Your task to perform on an android device: Open the map Image 0: 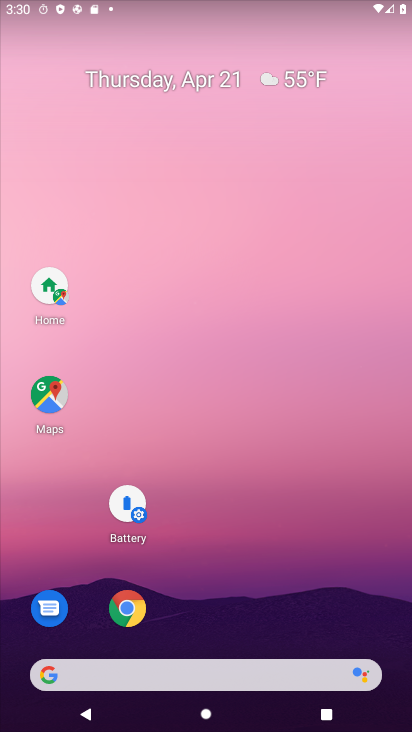
Step 0: drag from (299, 381) to (329, 40)
Your task to perform on an android device: Open the map Image 1: 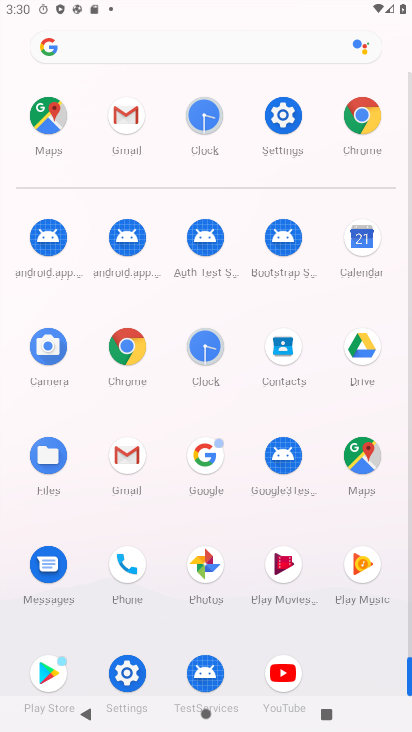
Step 1: click (37, 119)
Your task to perform on an android device: Open the map Image 2: 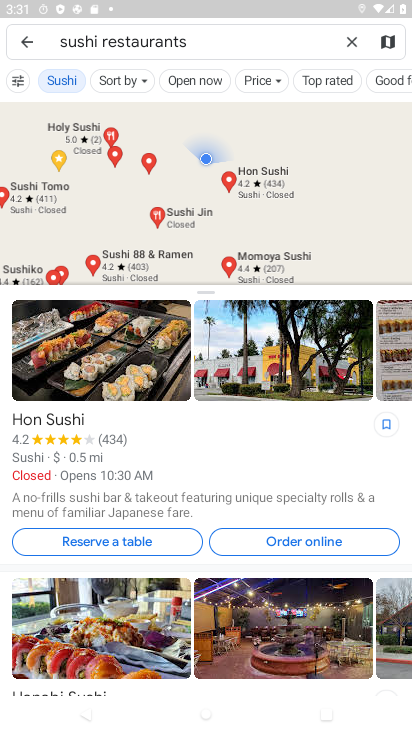
Step 2: task complete